Your task to perform on an android device: find photos in the google photos app Image 0: 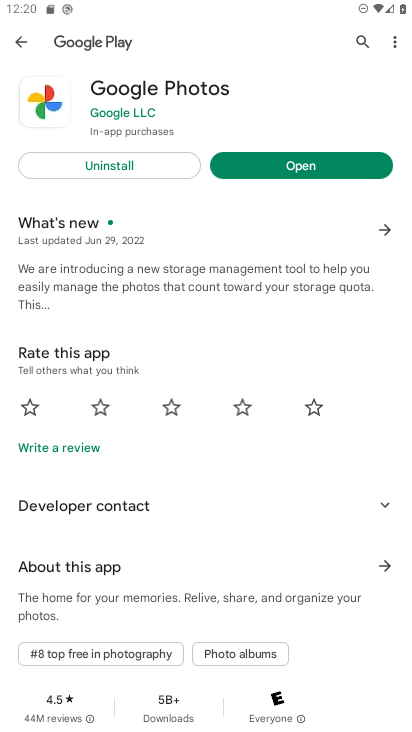
Step 0: click (363, 165)
Your task to perform on an android device: find photos in the google photos app Image 1: 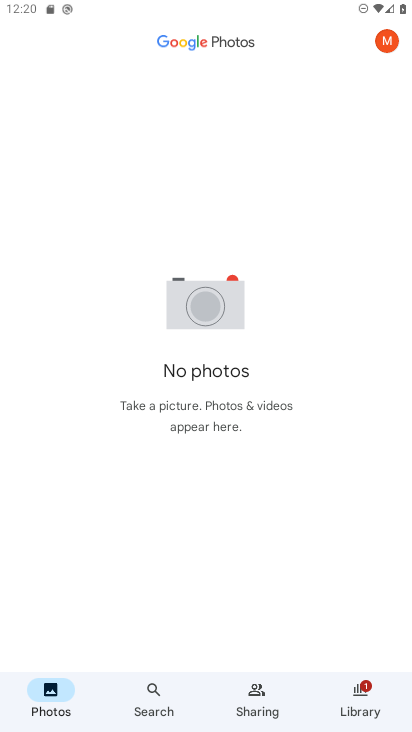
Step 1: click (164, 707)
Your task to perform on an android device: find photos in the google photos app Image 2: 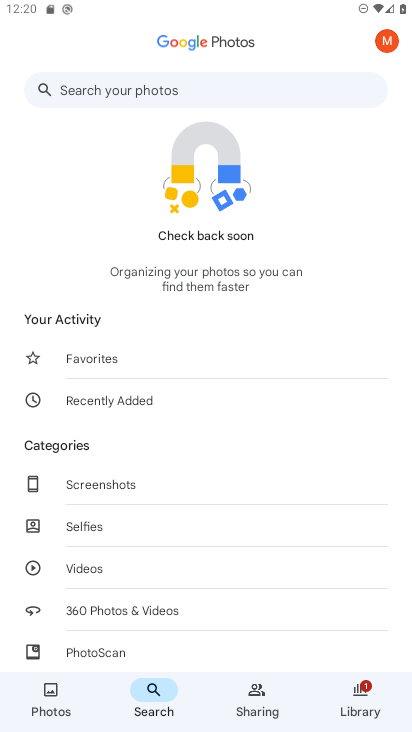
Step 2: task complete